Your task to perform on an android device: Play the last video I watched on Youtube Image 0: 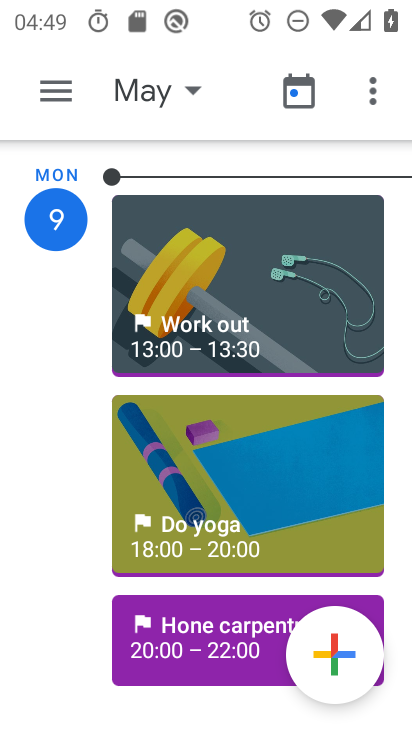
Step 0: press back button
Your task to perform on an android device: Play the last video I watched on Youtube Image 1: 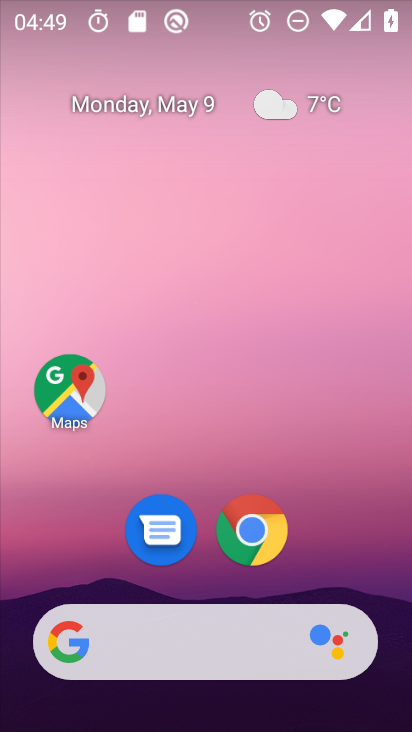
Step 1: drag from (172, 576) to (323, 5)
Your task to perform on an android device: Play the last video I watched on Youtube Image 2: 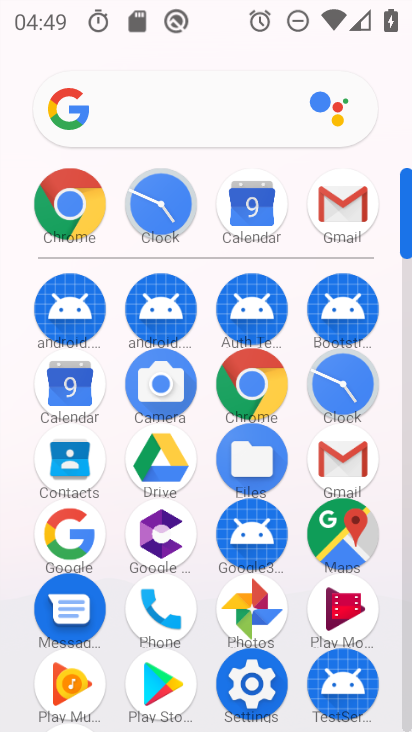
Step 2: drag from (205, 648) to (336, 21)
Your task to perform on an android device: Play the last video I watched on Youtube Image 3: 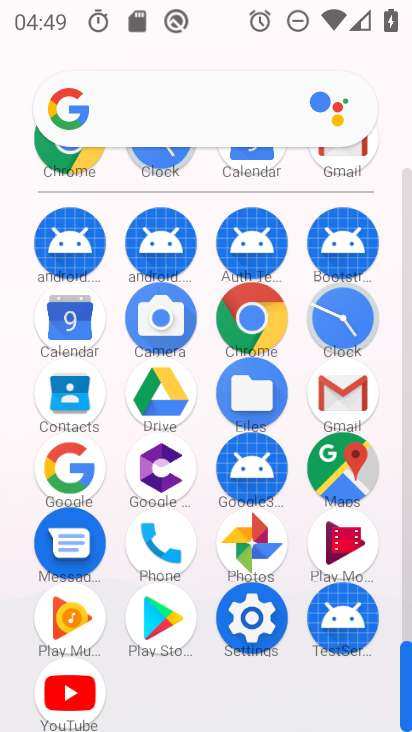
Step 3: click (63, 694)
Your task to perform on an android device: Play the last video I watched on Youtube Image 4: 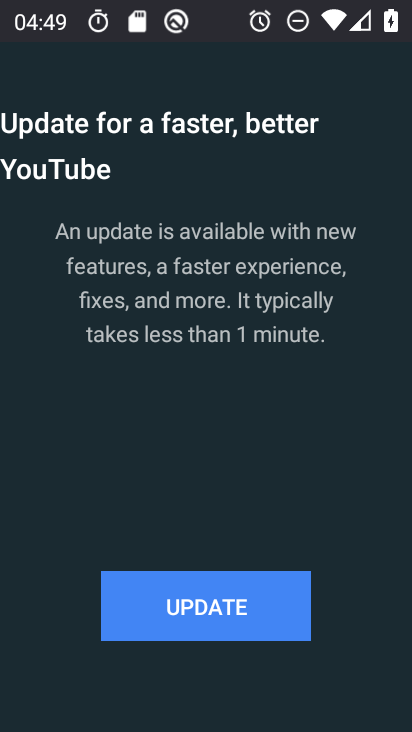
Step 4: click (198, 619)
Your task to perform on an android device: Play the last video I watched on Youtube Image 5: 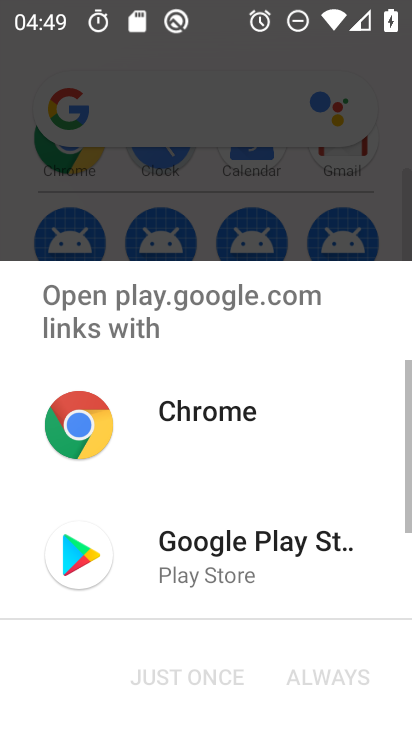
Step 5: click (191, 532)
Your task to perform on an android device: Play the last video I watched on Youtube Image 6: 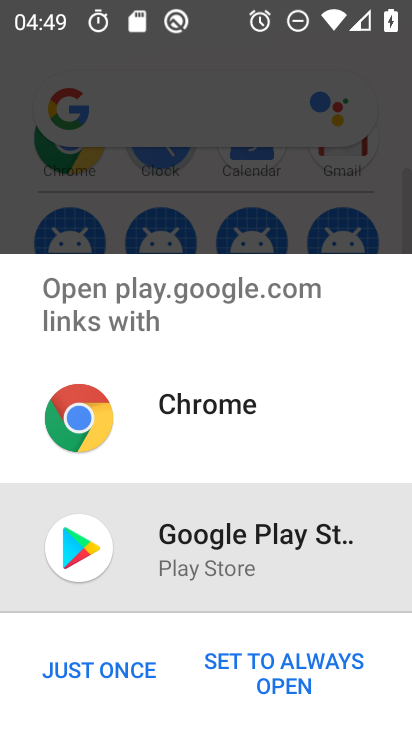
Step 6: click (84, 671)
Your task to perform on an android device: Play the last video I watched on Youtube Image 7: 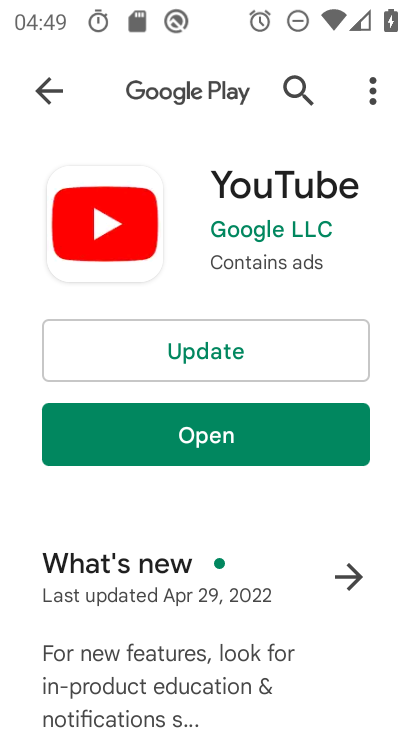
Step 7: click (206, 349)
Your task to perform on an android device: Play the last video I watched on Youtube Image 8: 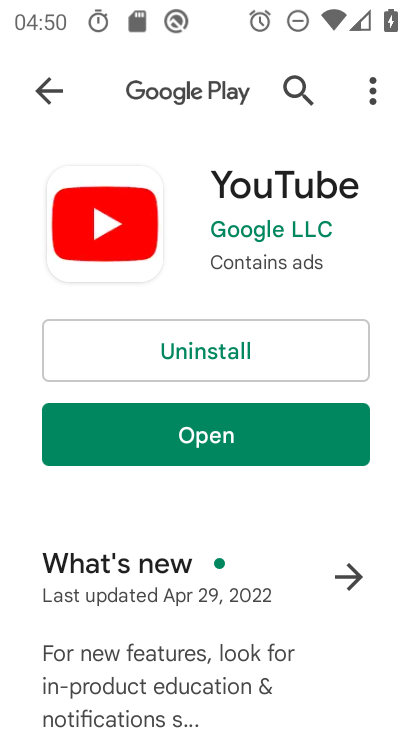
Step 8: click (195, 430)
Your task to perform on an android device: Play the last video I watched on Youtube Image 9: 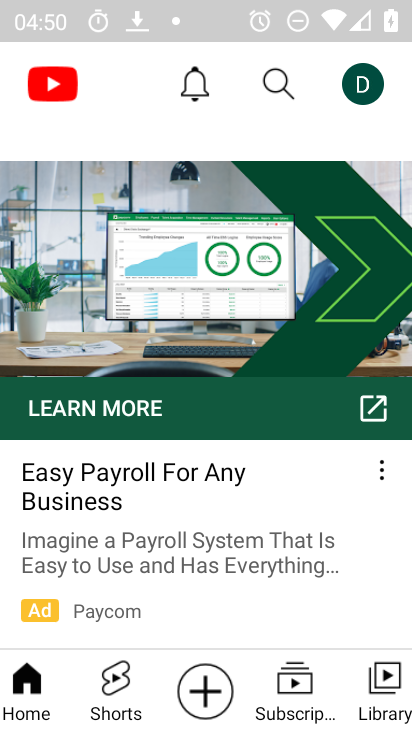
Step 9: click (376, 696)
Your task to perform on an android device: Play the last video I watched on Youtube Image 10: 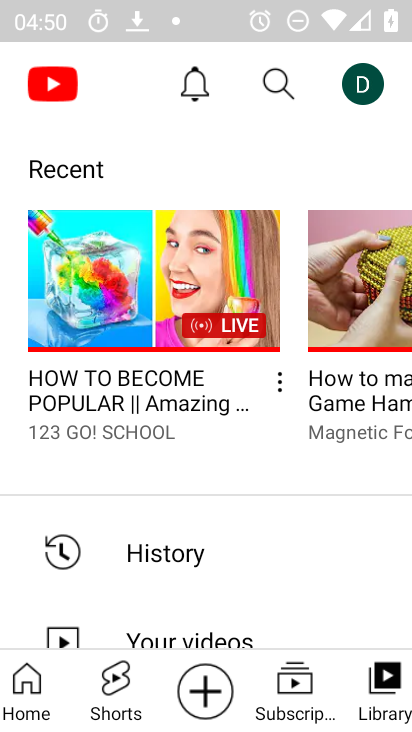
Step 10: click (153, 558)
Your task to perform on an android device: Play the last video I watched on Youtube Image 11: 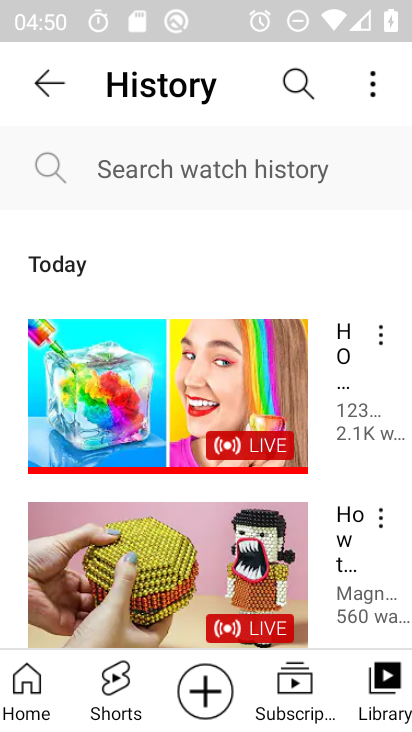
Step 11: click (168, 405)
Your task to perform on an android device: Play the last video I watched on Youtube Image 12: 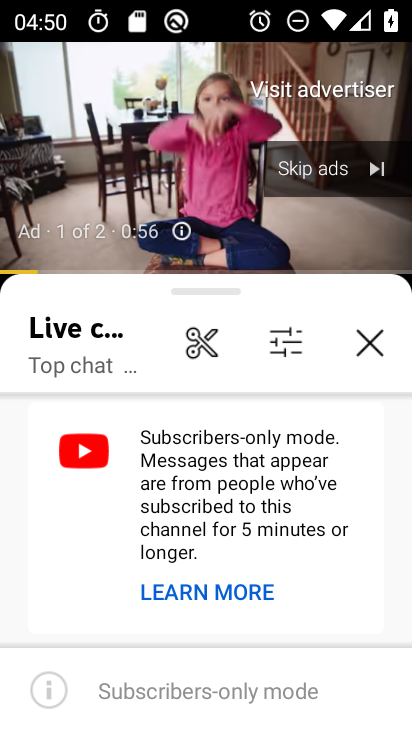
Step 12: task complete